Your task to perform on an android device: turn on wifi Image 0: 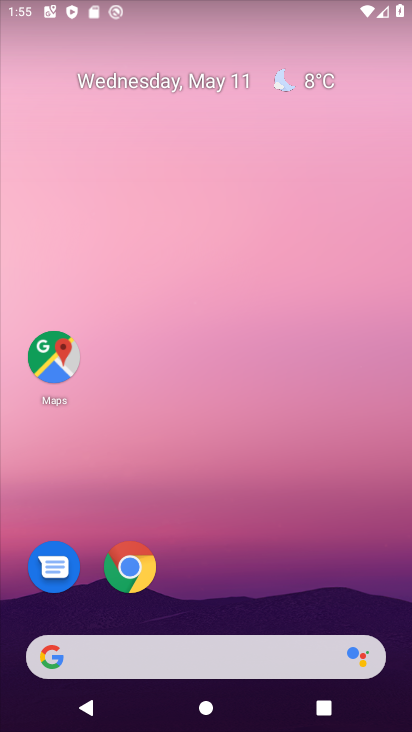
Step 0: drag from (309, 6) to (330, 433)
Your task to perform on an android device: turn on wifi Image 1: 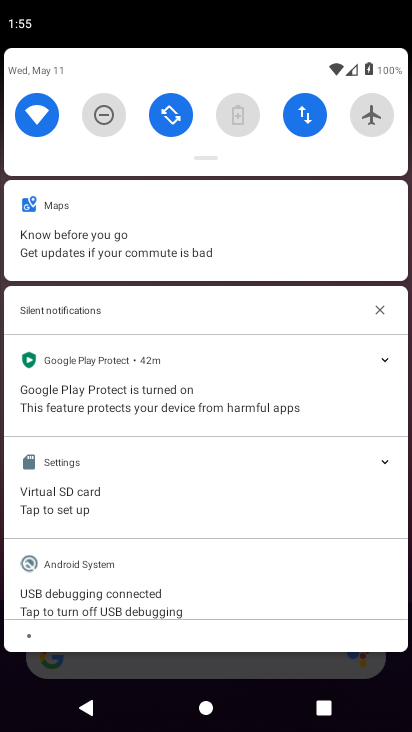
Step 1: task complete